Your task to perform on an android device: turn off smart reply in the gmail app Image 0: 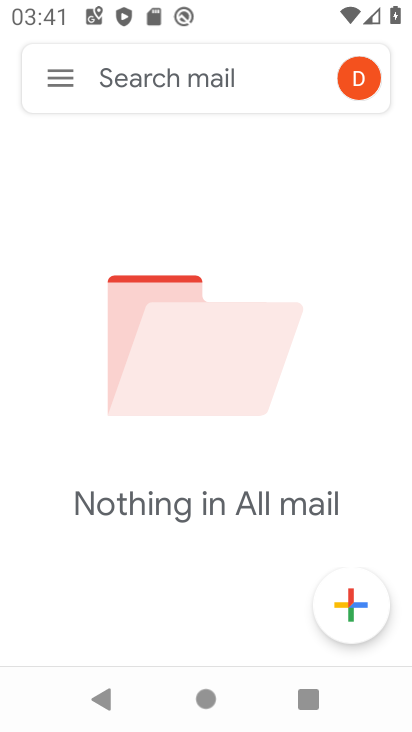
Step 0: click (68, 86)
Your task to perform on an android device: turn off smart reply in the gmail app Image 1: 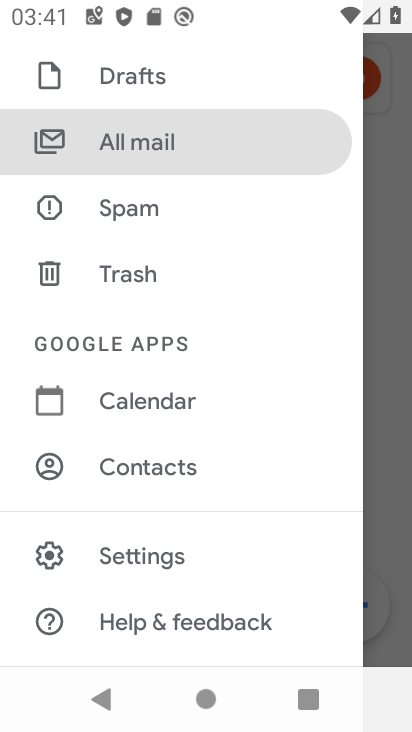
Step 1: click (169, 534)
Your task to perform on an android device: turn off smart reply in the gmail app Image 2: 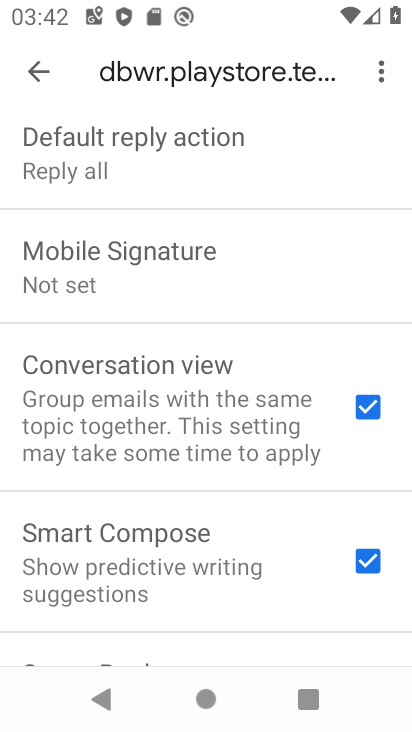
Step 2: drag from (142, 514) to (164, 180)
Your task to perform on an android device: turn off smart reply in the gmail app Image 3: 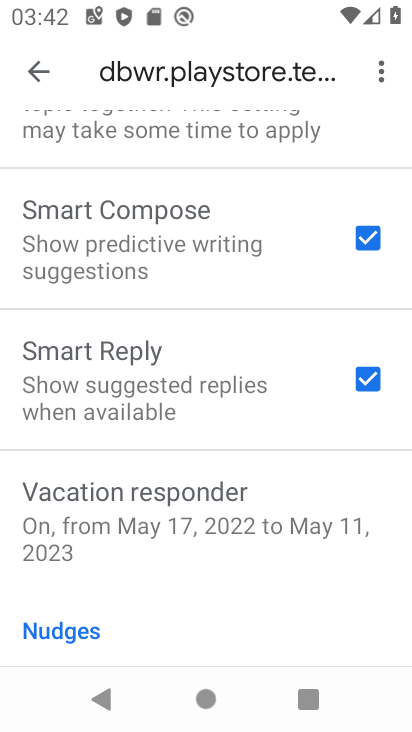
Step 3: click (374, 380)
Your task to perform on an android device: turn off smart reply in the gmail app Image 4: 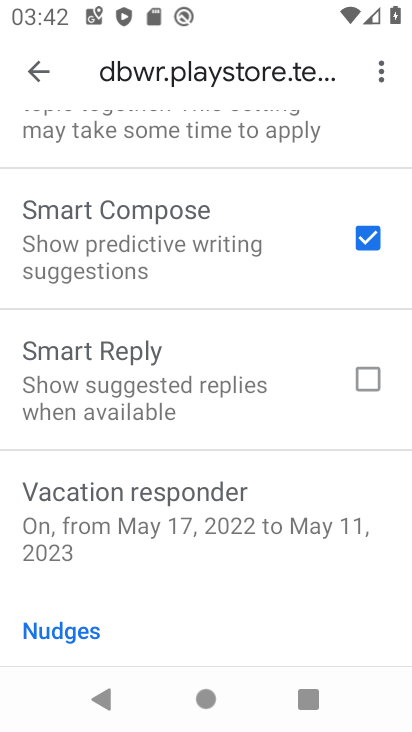
Step 4: task complete